Your task to perform on an android device: Open Amazon Image 0: 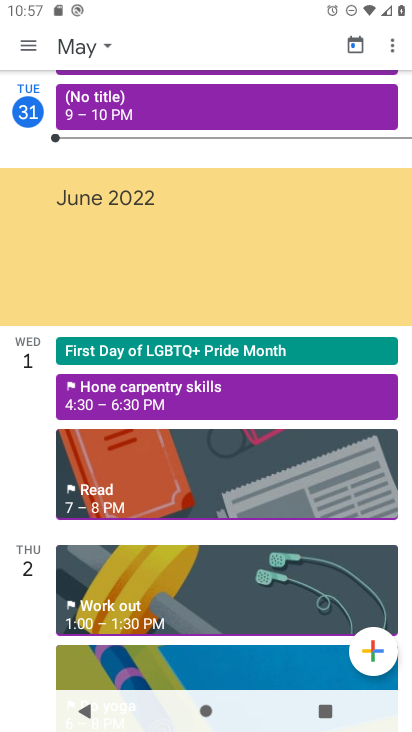
Step 0: press home button
Your task to perform on an android device: Open Amazon Image 1: 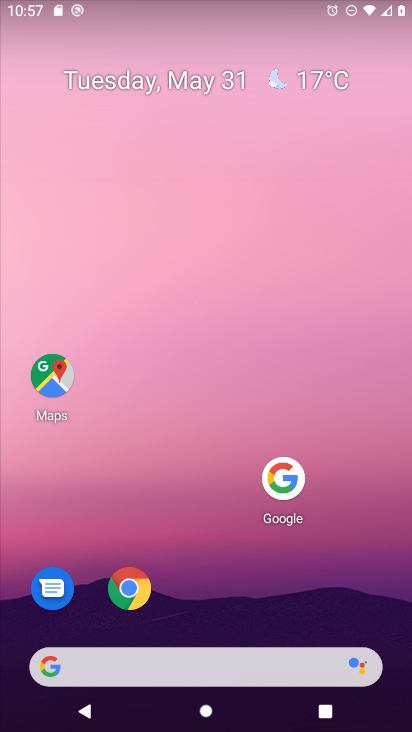
Step 1: click (137, 590)
Your task to perform on an android device: Open Amazon Image 2: 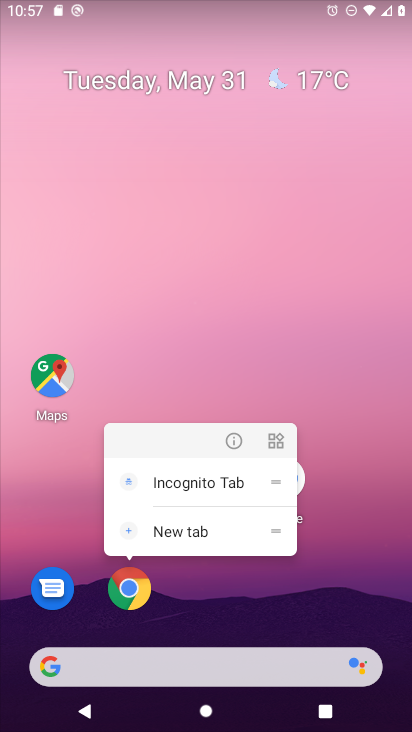
Step 2: click (130, 591)
Your task to perform on an android device: Open Amazon Image 3: 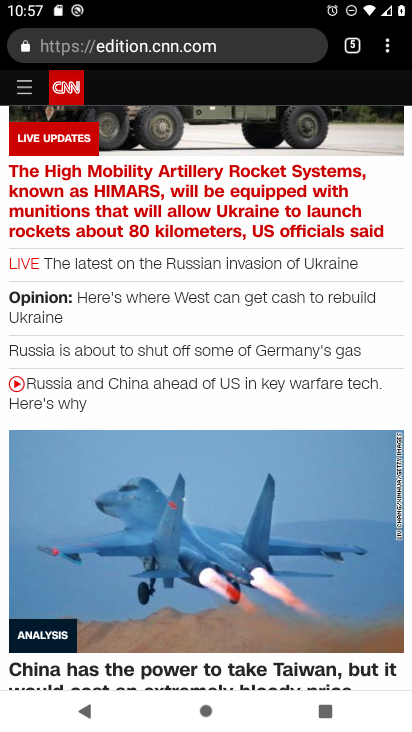
Step 3: drag from (390, 47) to (301, 93)
Your task to perform on an android device: Open Amazon Image 4: 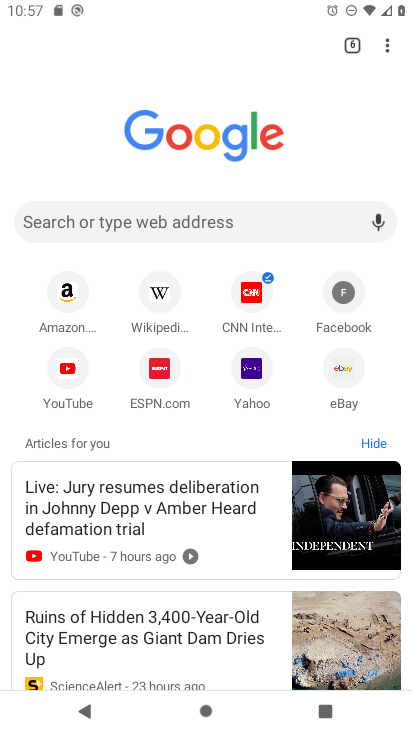
Step 4: click (68, 292)
Your task to perform on an android device: Open Amazon Image 5: 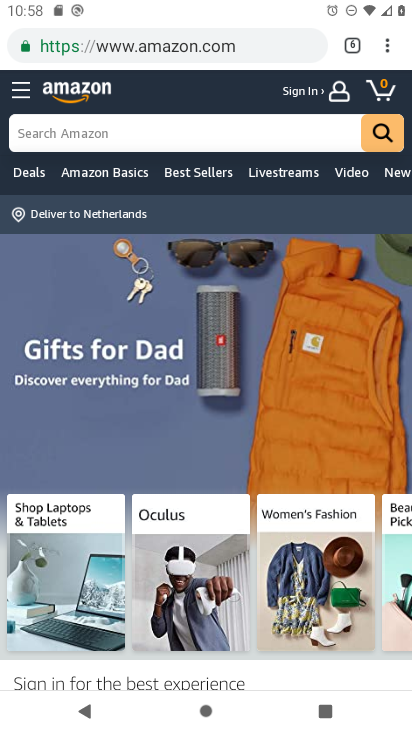
Step 5: task complete